Your task to perform on an android device: Open calendar and show me the second week of next month Image 0: 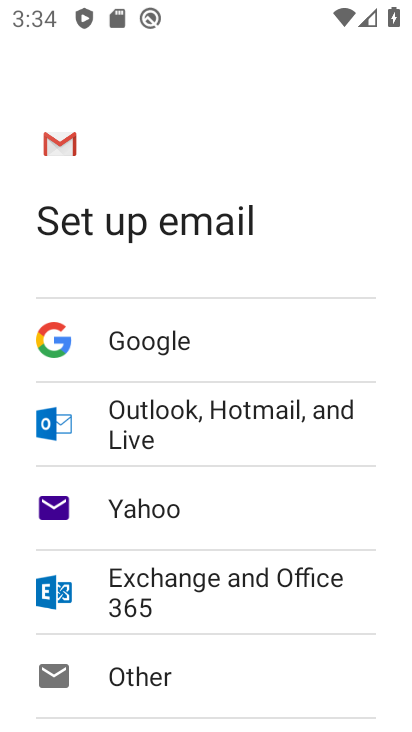
Step 0: press home button
Your task to perform on an android device: Open calendar and show me the second week of next month Image 1: 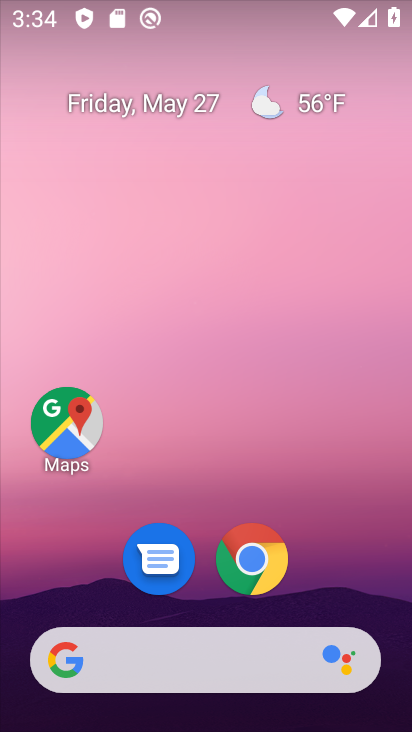
Step 1: drag from (56, 597) to (190, 162)
Your task to perform on an android device: Open calendar and show me the second week of next month Image 2: 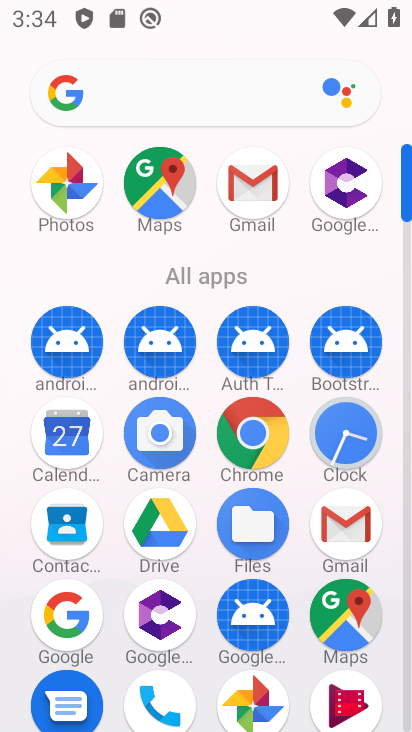
Step 2: drag from (176, 592) to (258, 352)
Your task to perform on an android device: Open calendar and show me the second week of next month Image 3: 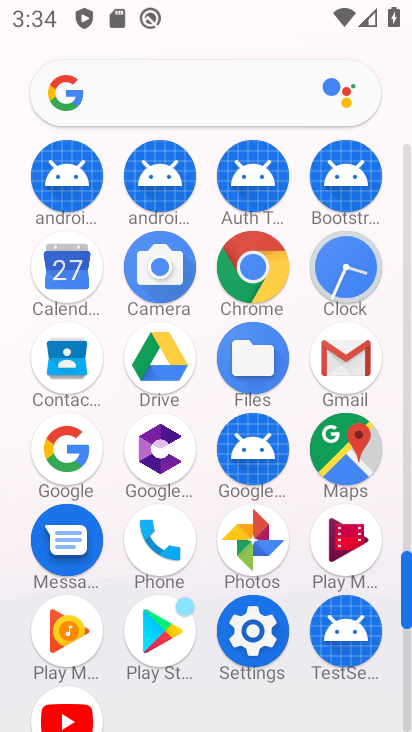
Step 3: drag from (235, 642) to (309, 393)
Your task to perform on an android device: Open calendar and show me the second week of next month Image 4: 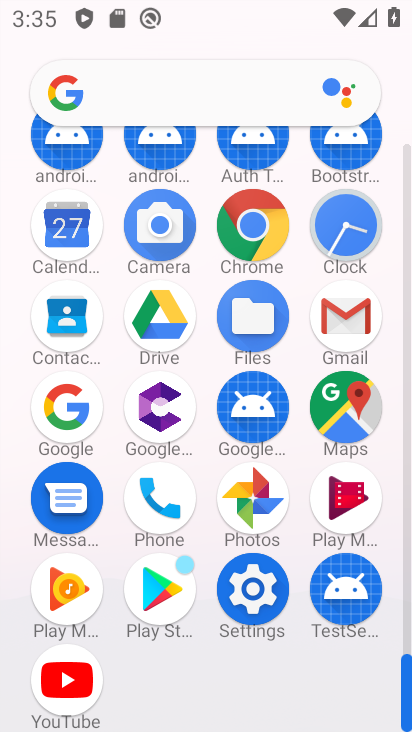
Step 4: click (58, 237)
Your task to perform on an android device: Open calendar and show me the second week of next month Image 5: 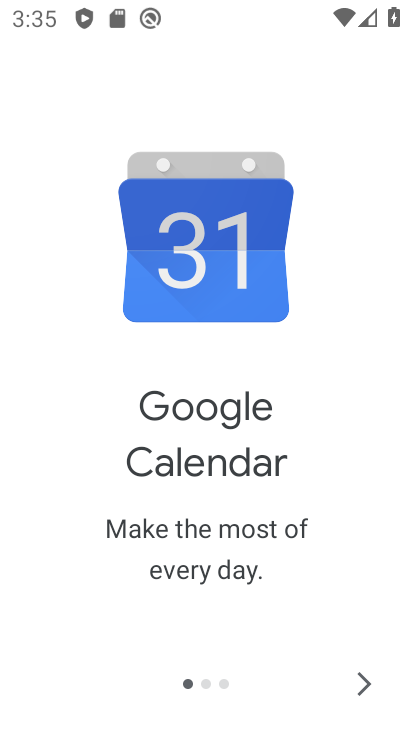
Step 5: click (364, 681)
Your task to perform on an android device: Open calendar and show me the second week of next month Image 6: 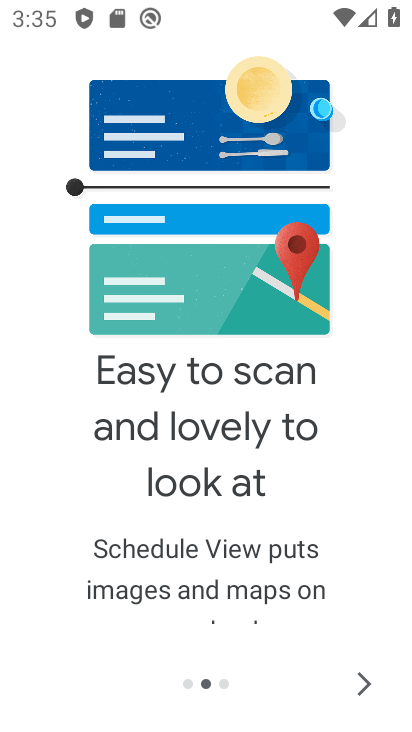
Step 6: click (368, 667)
Your task to perform on an android device: Open calendar and show me the second week of next month Image 7: 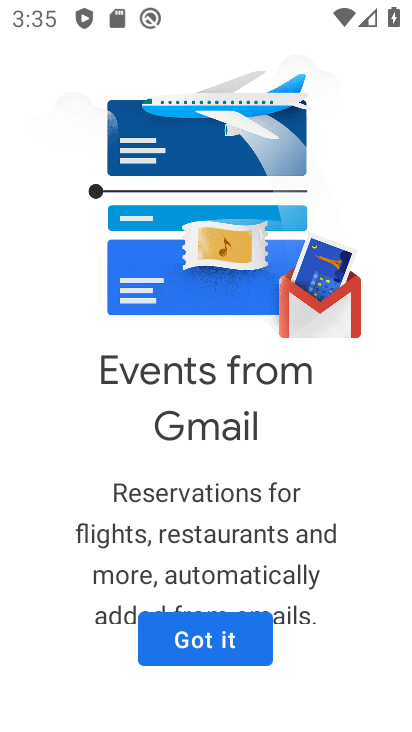
Step 7: click (175, 629)
Your task to perform on an android device: Open calendar and show me the second week of next month Image 8: 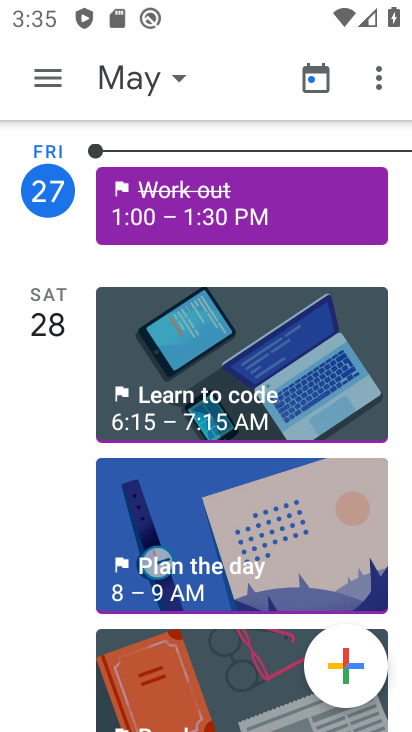
Step 8: click (117, 82)
Your task to perform on an android device: Open calendar and show me the second week of next month Image 9: 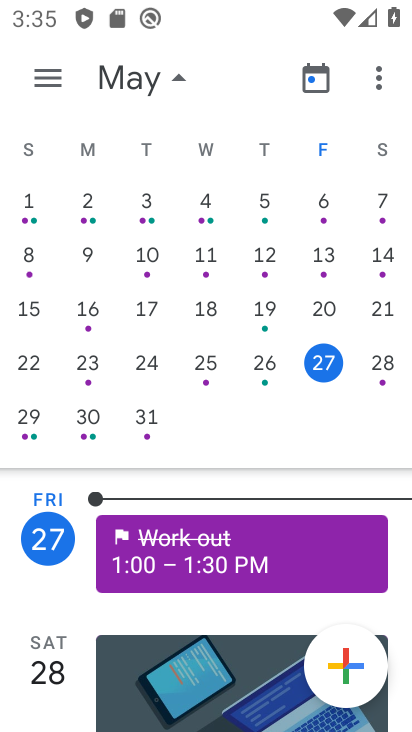
Step 9: drag from (151, 423) to (13, 351)
Your task to perform on an android device: Open calendar and show me the second week of next month Image 10: 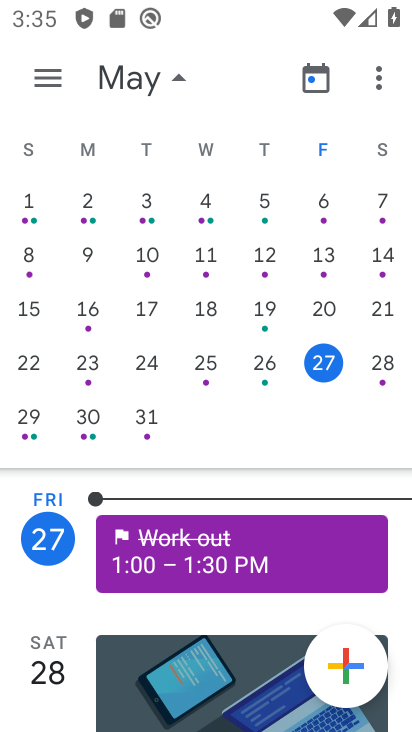
Step 10: drag from (327, 406) to (19, 344)
Your task to perform on an android device: Open calendar and show me the second week of next month Image 11: 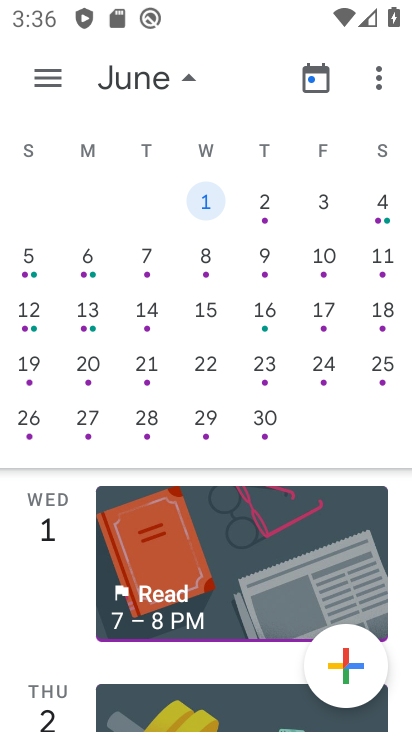
Step 11: click (27, 306)
Your task to perform on an android device: Open calendar and show me the second week of next month Image 12: 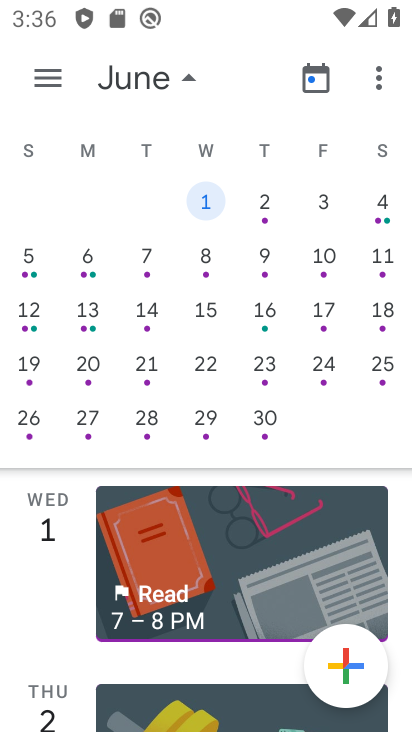
Step 12: click (32, 314)
Your task to perform on an android device: Open calendar and show me the second week of next month Image 13: 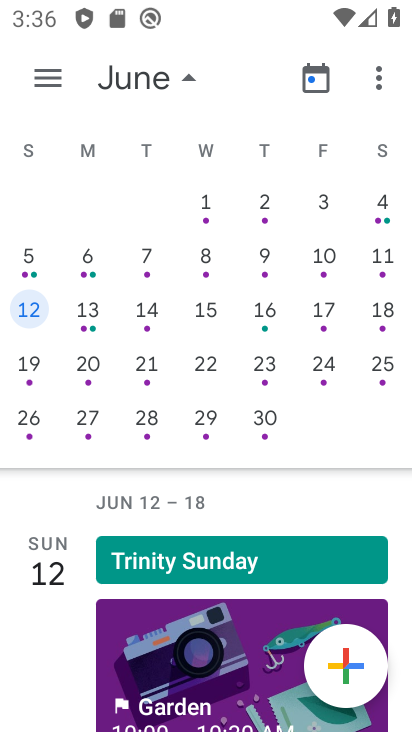
Step 13: click (60, 79)
Your task to perform on an android device: Open calendar and show me the second week of next month Image 14: 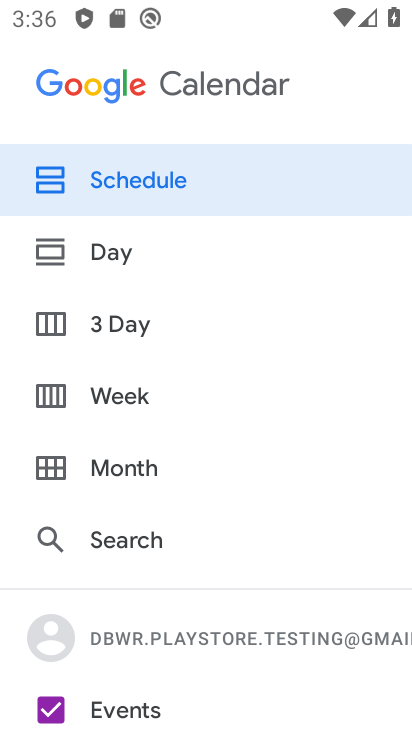
Step 14: click (123, 388)
Your task to perform on an android device: Open calendar and show me the second week of next month Image 15: 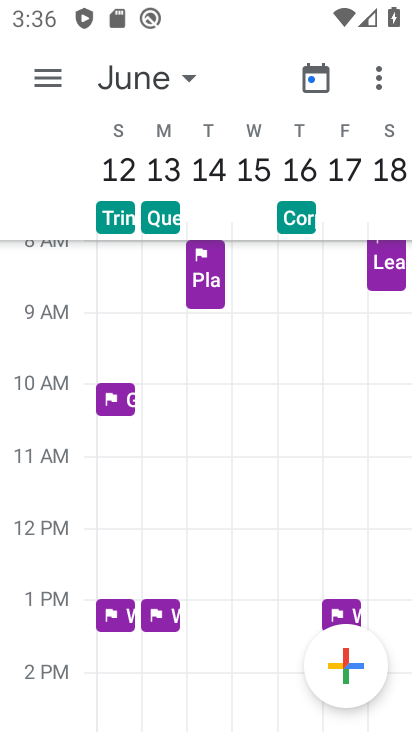
Step 15: task complete